Your task to perform on an android device: Go to network settings Image 0: 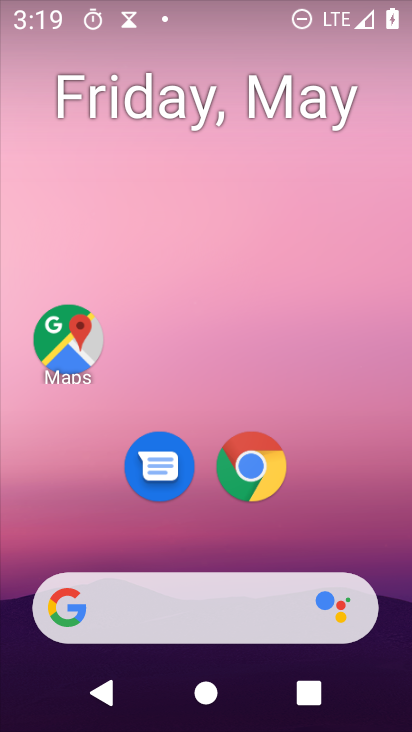
Step 0: drag from (378, 474) to (359, 76)
Your task to perform on an android device: Go to network settings Image 1: 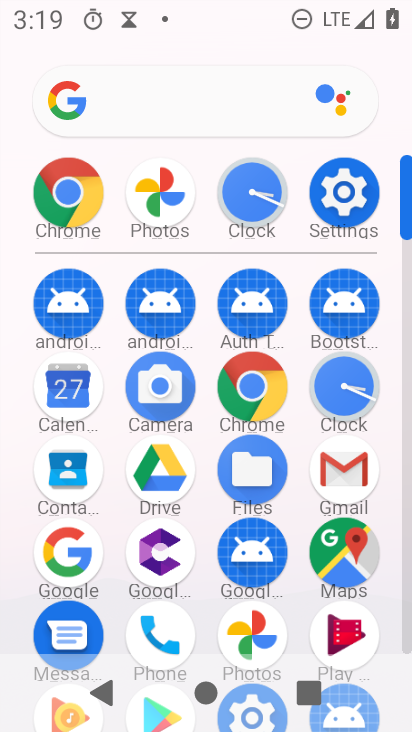
Step 1: click (364, 194)
Your task to perform on an android device: Go to network settings Image 2: 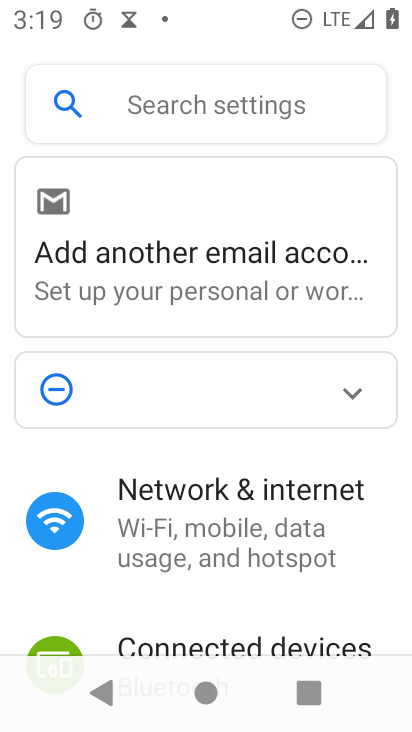
Step 2: drag from (181, 640) to (217, 388)
Your task to perform on an android device: Go to network settings Image 3: 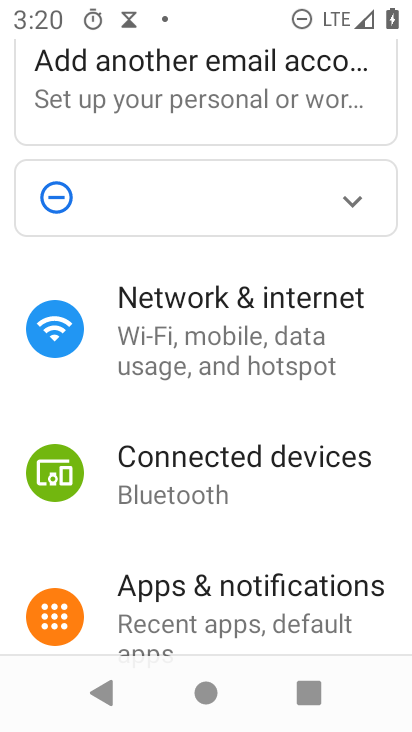
Step 3: click (216, 317)
Your task to perform on an android device: Go to network settings Image 4: 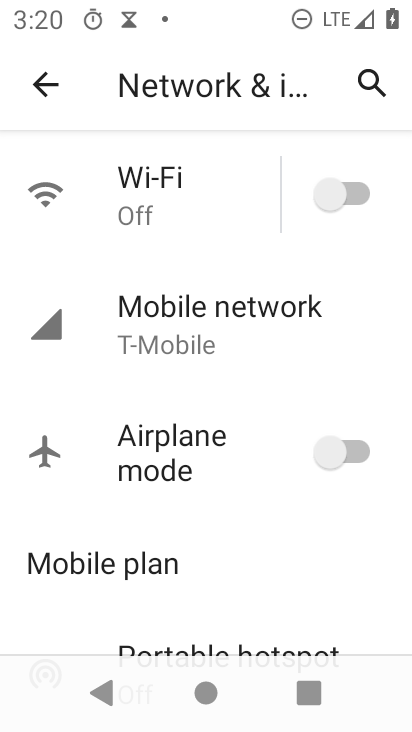
Step 4: task complete